Your task to perform on an android device: Go to Wikipedia Image 0: 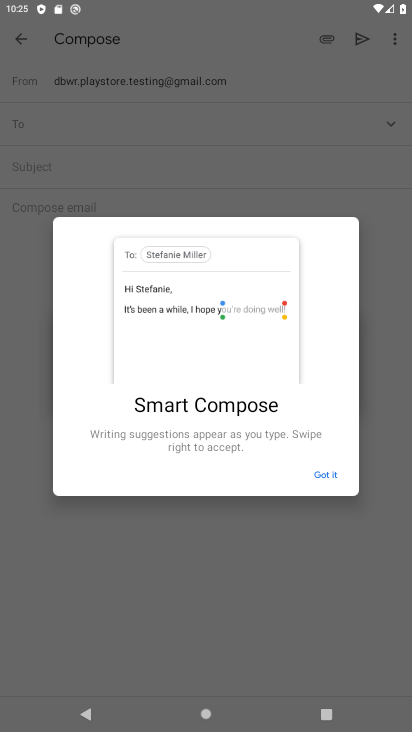
Step 0: press home button
Your task to perform on an android device: Go to Wikipedia Image 1: 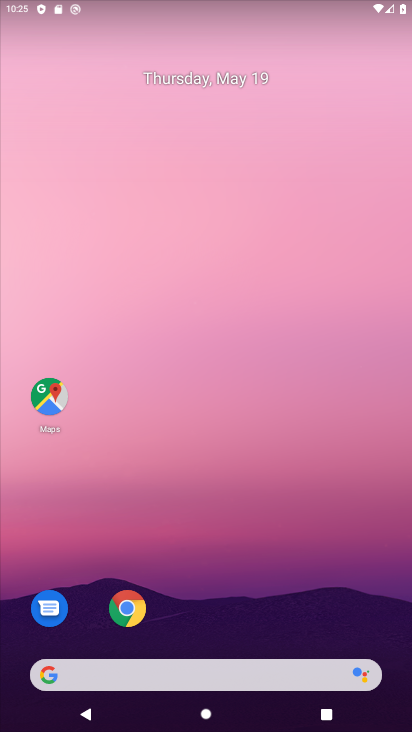
Step 1: click (129, 620)
Your task to perform on an android device: Go to Wikipedia Image 2: 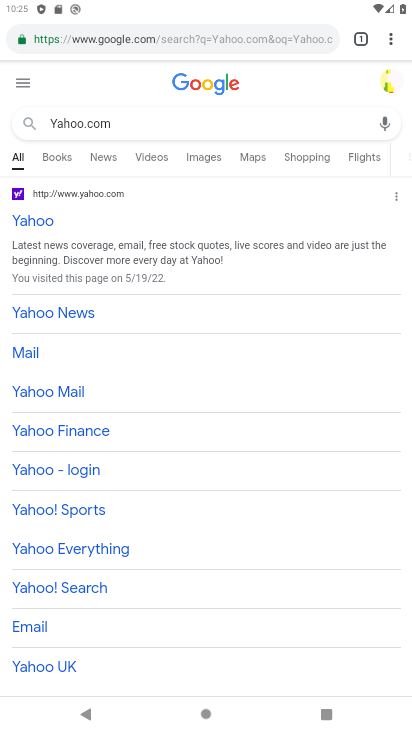
Step 2: click (333, 38)
Your task to perform on an android device: Go to Wikipedia Image 3: 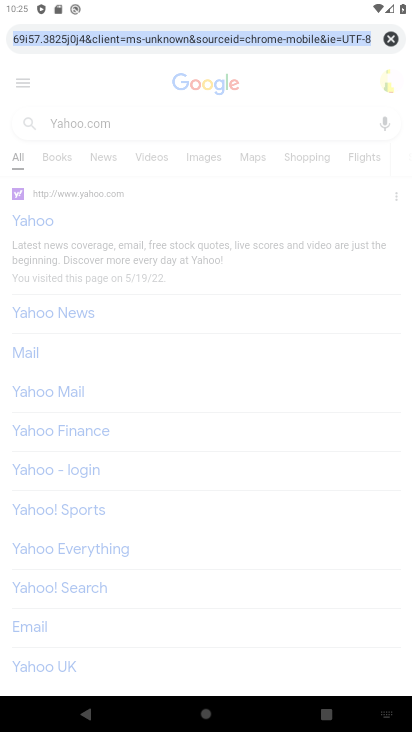
Step 3: click (384, 39)
Your task to perform on an android device: Go to Wikipedia Image 4: 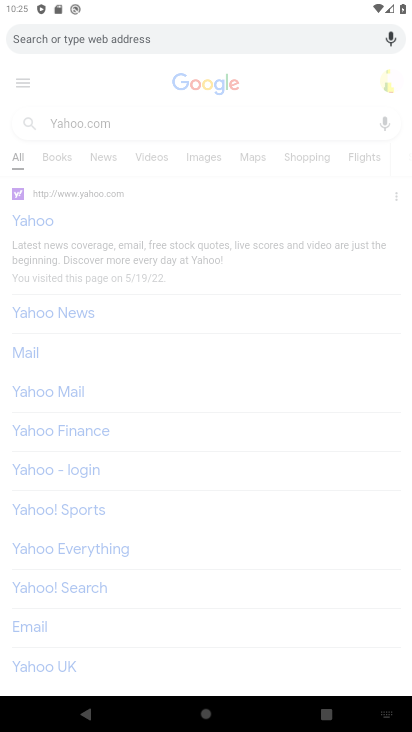
Step 4: type "Wikipedia"
Your task to perform on an android device: Go to Wikipedia Image 5: 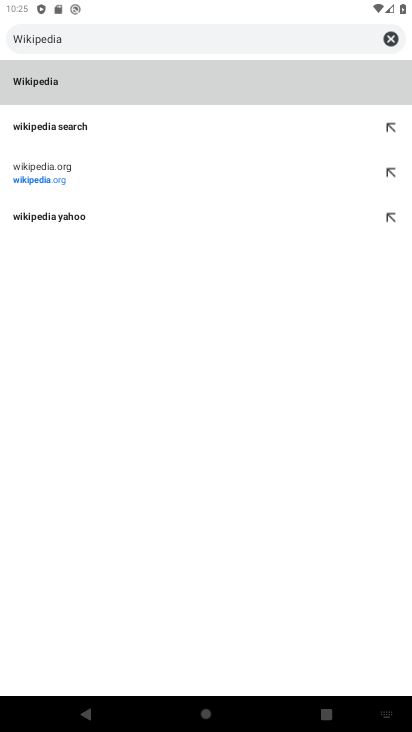
Step 5: click (42, 72)
Your task to perform on an android device: Go to Wikipedia Image 6: 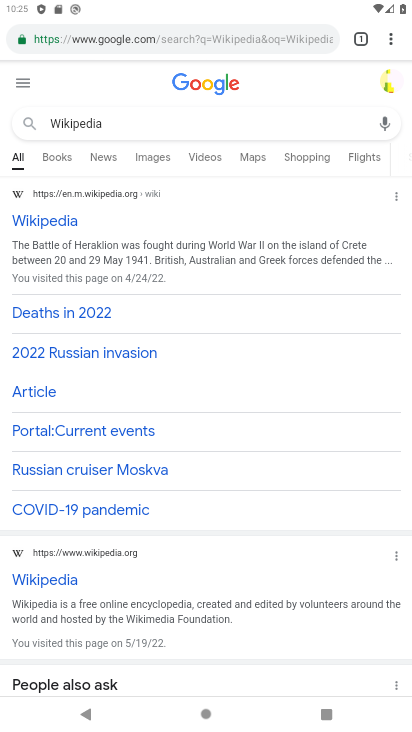
Step 6: click (27, 221)
Your task to perform on an android device: Go to Wikipedia Image 7: 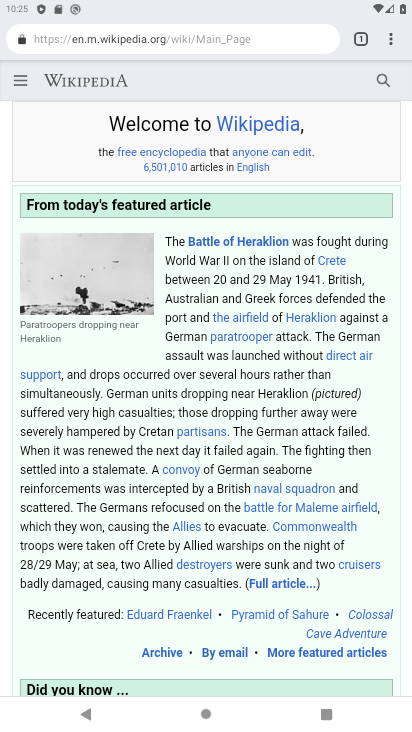
Step 7: task complete